Your task to perform on an android device: Go to location settings Image 0: 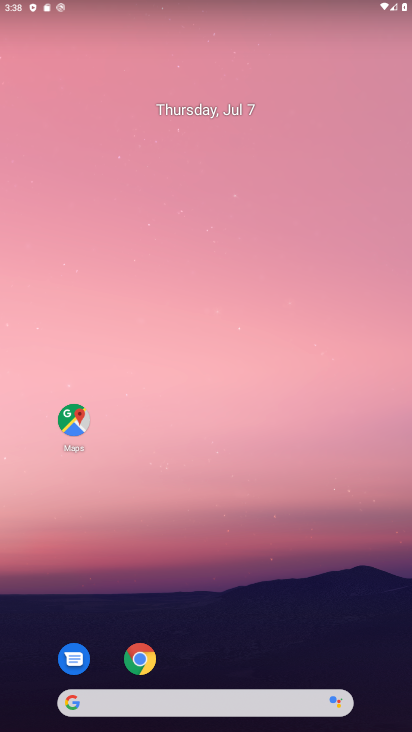
Step 0: drag from (206, 562) to (224, 9)
Your task to perform on an android device: Go to location settings Image 1: 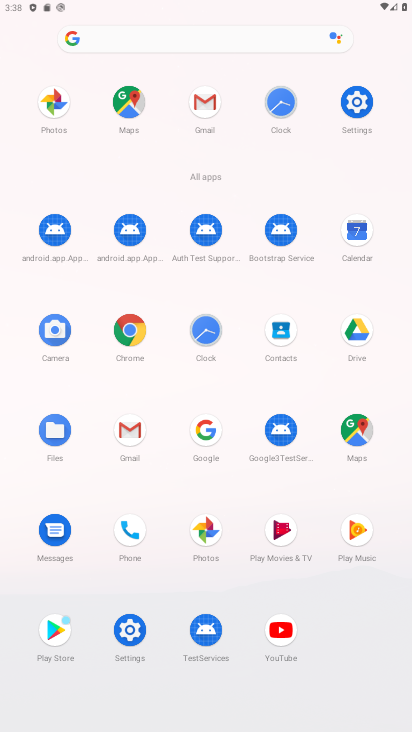
Step 1: click (132, 632)
Your task to perform on an android device: Go to location settings Image 2: 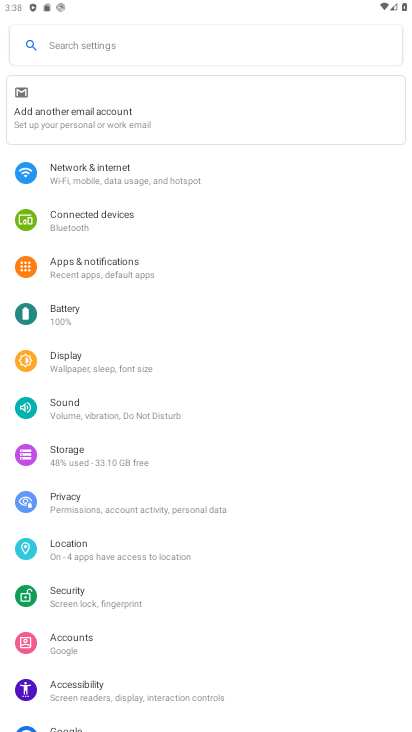
Step 2: drag from (94, 595) to (162, 345)
Your task to perform on an android device: Go to location settings Image 3: 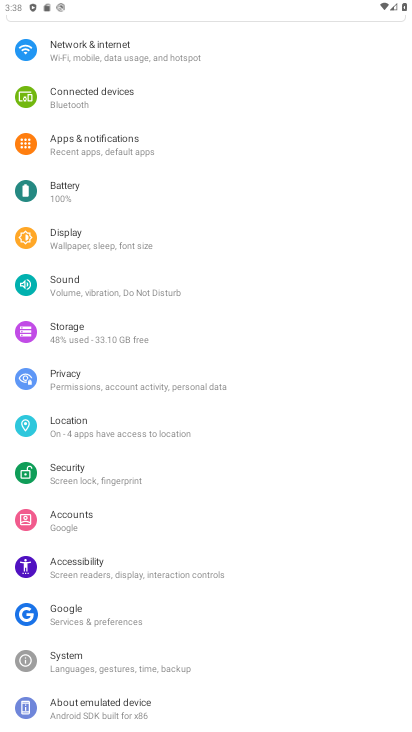
Step 3: click (100, 426)
Your task to perform on an android device: Go to location settings Image 4: 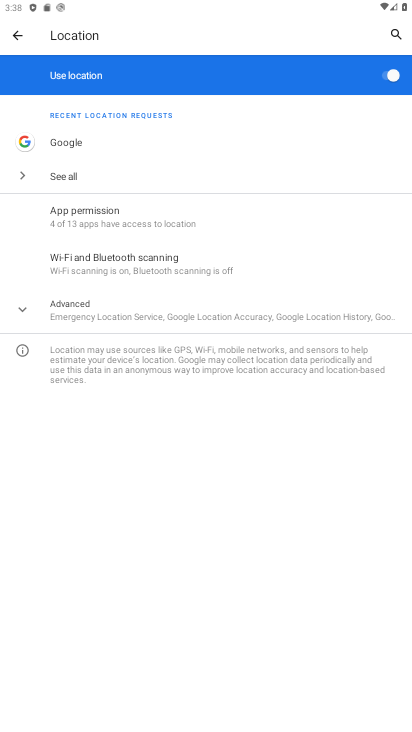
Step 4: task complete